Your task to perform on an android device: Show me the alarms in the clock app Image 0: 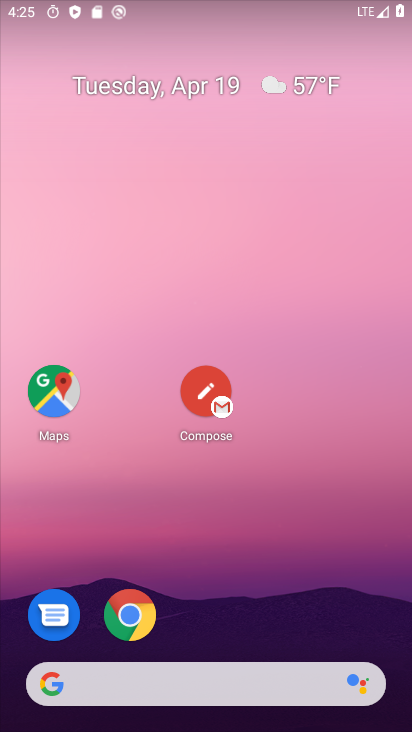
Step 0: drag from (338, 665) to (351, 26)
Your task to perform on an android device: Show me the alarms in the clock app Image 1: 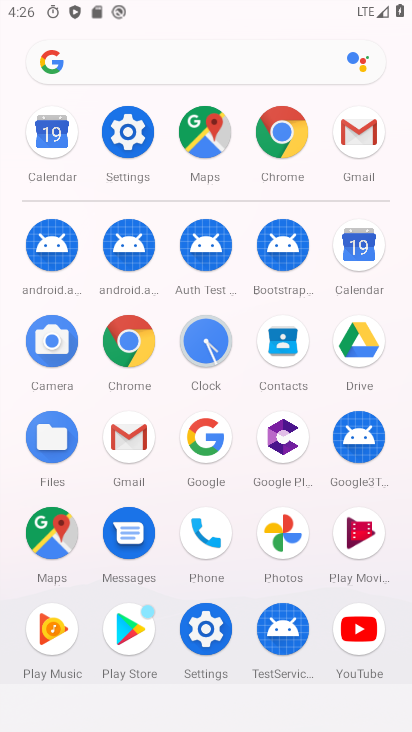
Step 1: click (195, 337)
Your task to perform on an android device: Show me the alarms in the clock app Image 2: 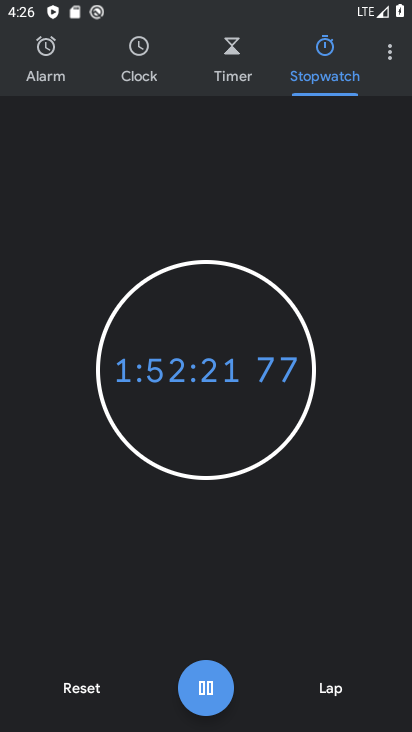
Step 2: click (45, 50)
Your task to perform on an android device: Show me the alarms in the clock app Image 3: 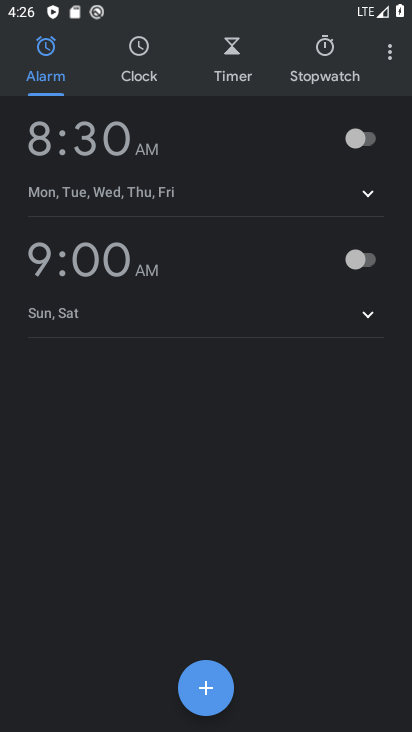
Step 3: task complete